Your task to perform on an android device: Open settings on Google Maps Image 0: 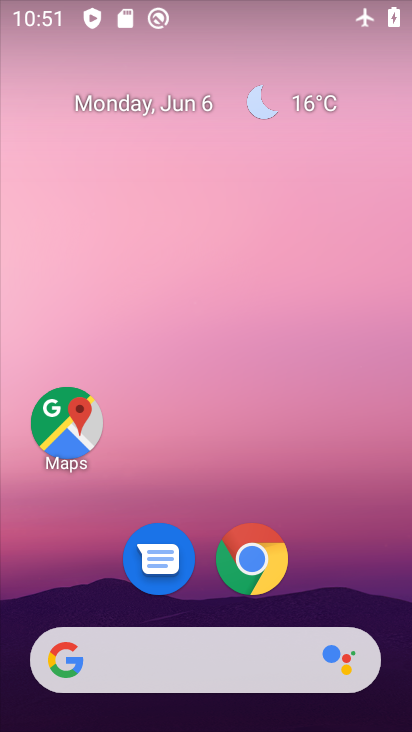
Step 0: click (74, 432)
Your task to perform on an android device: Open settings on Google Maps Image 1: 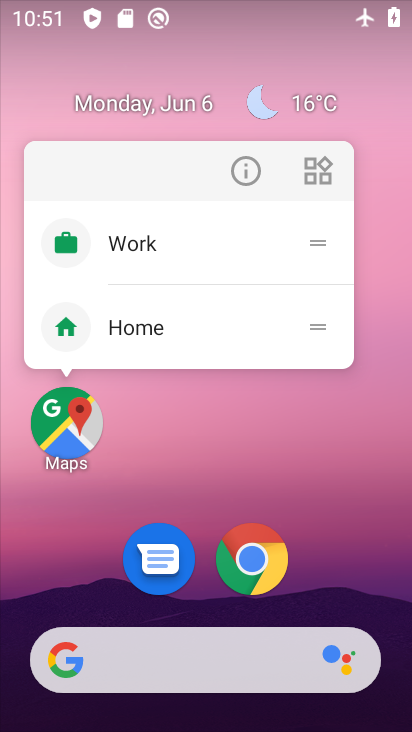
Step 1: click (66, 446)
Your task to perform on an android device: Open settings on Google Maps Image 2: 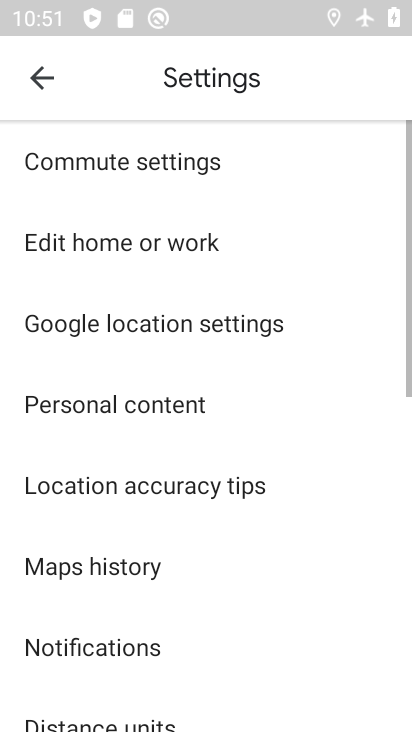
Step 2: task complete